Your task to perform on an android device: toggle priority inbox in the gmail app Image 0: 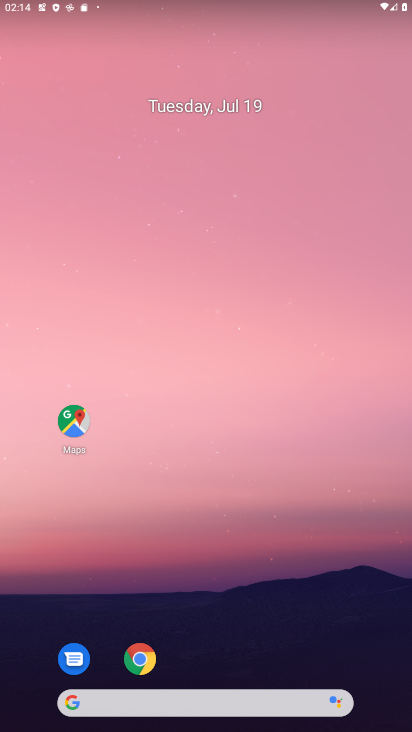
Step 0: press home button
Your task to perform on an android device: toggle priority inbox in the gmail app Image 1: 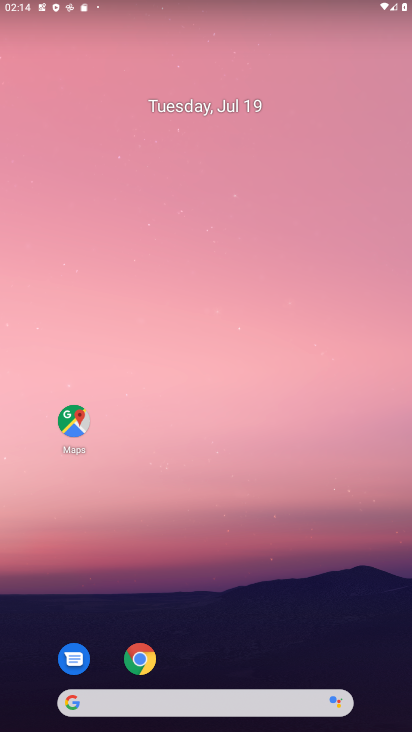
Step 1: drag from (291, 642) to (262, 80)
Your task to perform on an android device: toggle priority inbox in the gmail app Image 2: 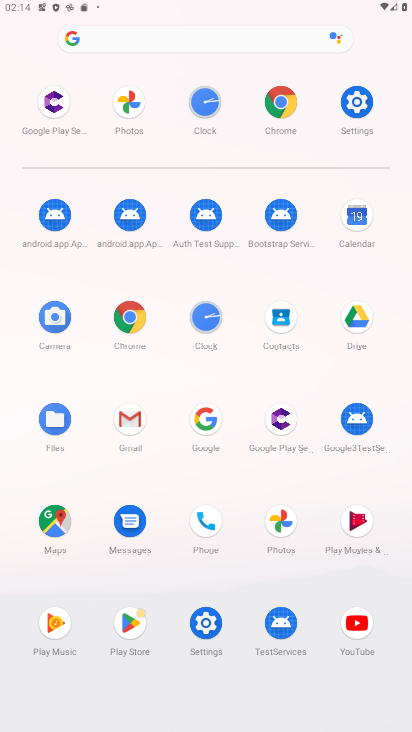
Step 2: click (123, 457)
Your task to perform on an android device: toggle priority inbox in the gmail app Image 3: 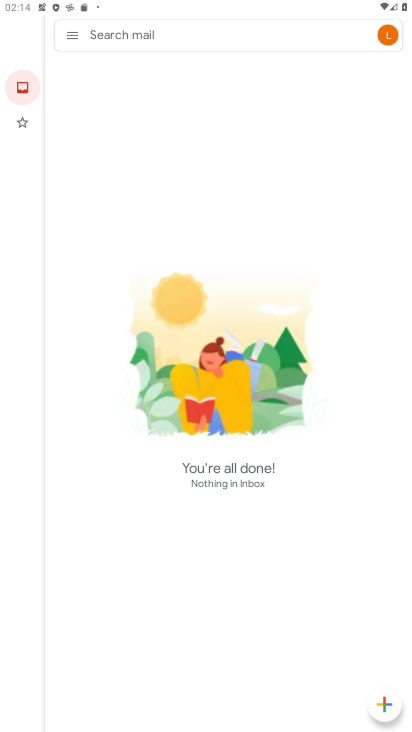
Step 3: click (60, 31)
Your task to perform on an android device: toggle priority inbox in the gmail app Image 4: 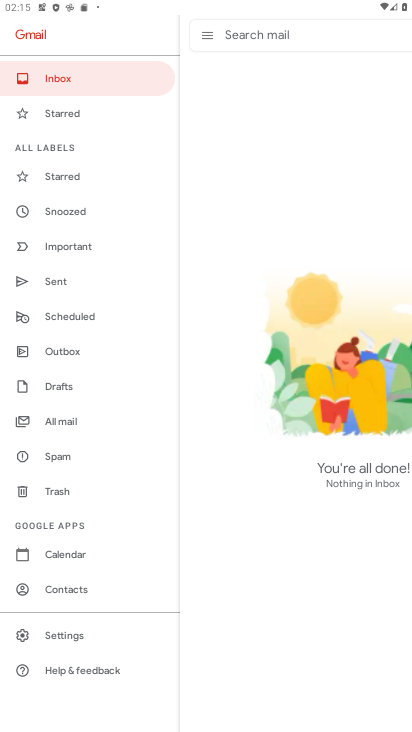
Step 4: click (96, 664)
Your task to perform on an android device: toggle priority inbox in the gmail app Image 5: 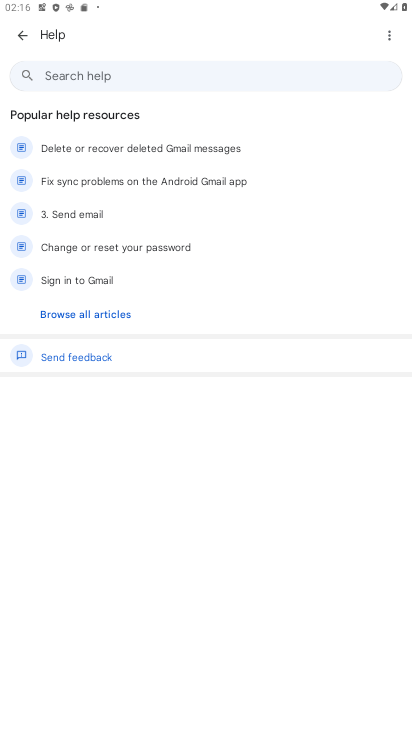
Step 5: press back button
Your task to perform on an android device: toggle priority inbox in the gmail app Image 6: 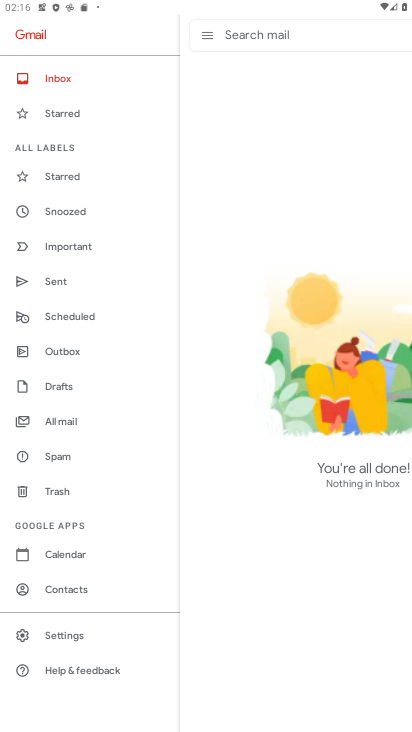
Step 6: click (31, 635)
Your task to perform on an android device: toggle priority inbox in the gmail app Image 7: 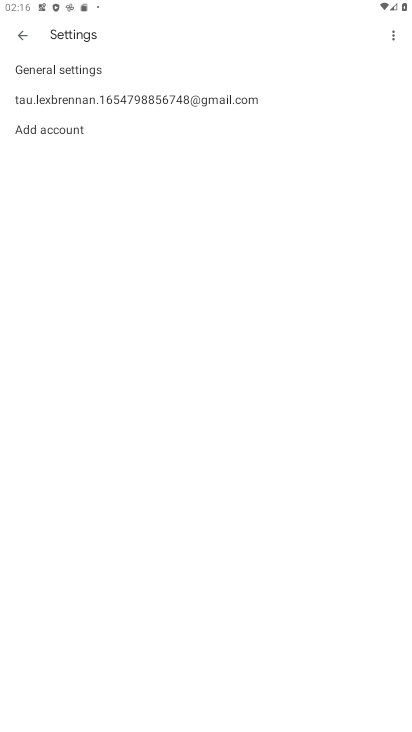
Step 7: click (54, 93)
Your task to perform on an android device: toggle priority inbox in the gmail app Image 8: 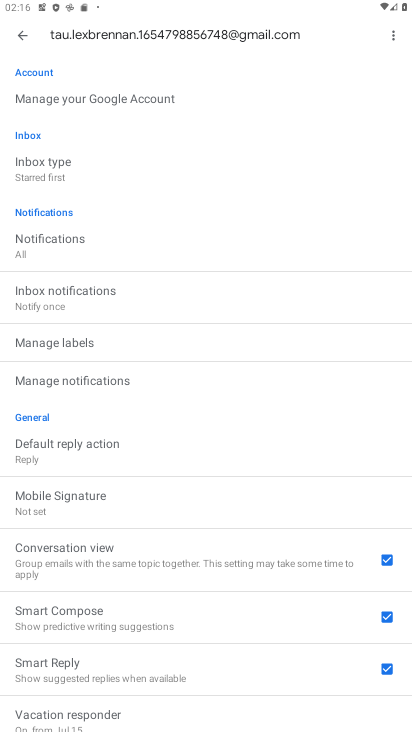
Step 8: click (68, 181)
Your task to perform on an android device: toggle priority inbox in the gmail app Image 9: 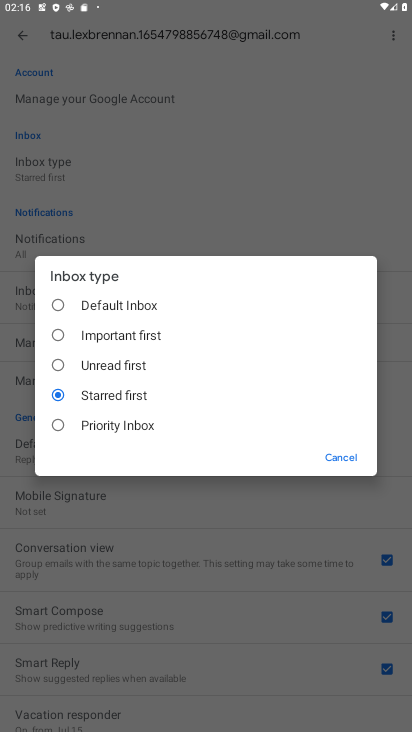
Step 9: click (76, 415)
Your task to perform on an android device: toggle priority inbox in the gmail app Image 10: 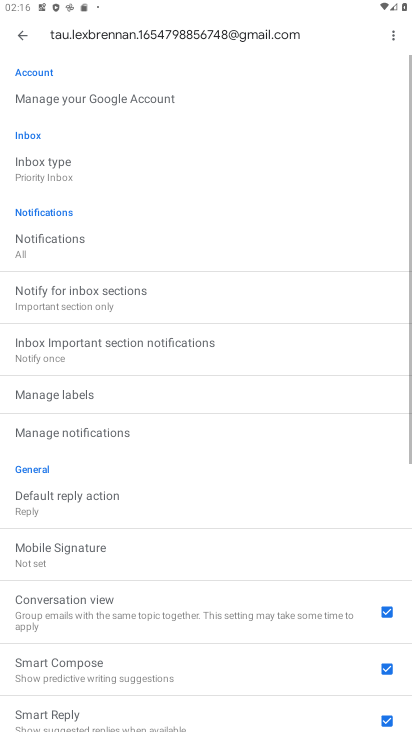
Step 10: task complete